Your task to perform on an android device: Open my contact list Image 0: 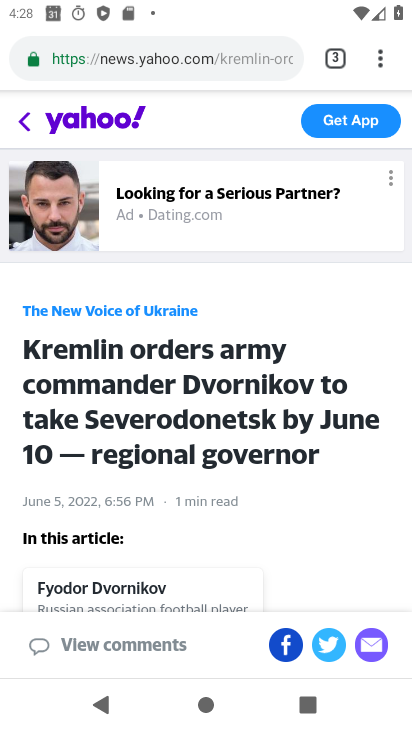
Step 0: press home button
Your task to perform on an android device: Open my contact list Image 1: 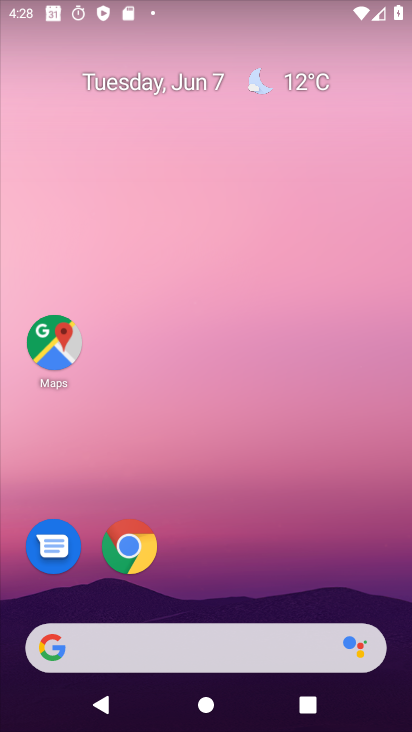
Step 1: drag from (165, 608) to (183, 147)
Your task to perform on an android device: Open my contact list Image 2: 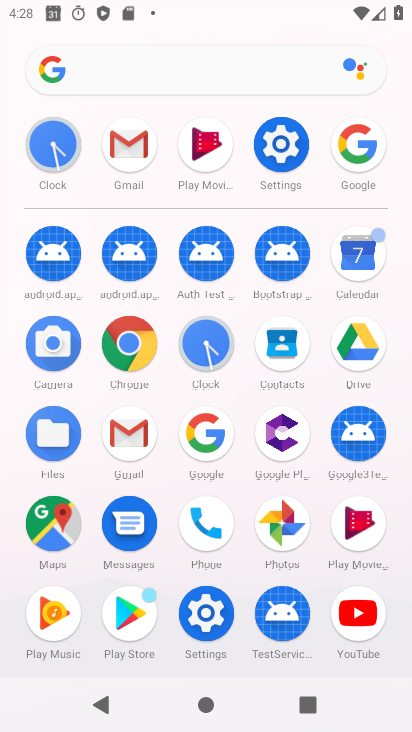
Step 2: click (291, 345)
Your task to perform on an android device: Open my contact list Image 3: 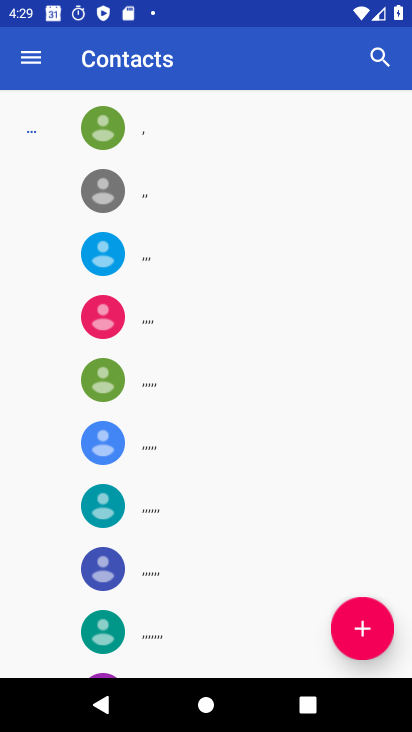
Step 3: task complete